Your task to perform on an android device: allow cookies in the chrome app Image 0: 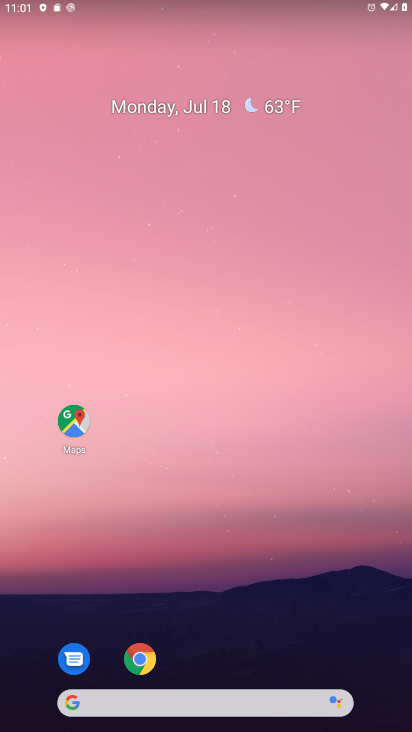
Step 0: drag from (212, 670) to (240, 102)
Your task to perform on an android device: allow cookies in the chrome app Image 1: 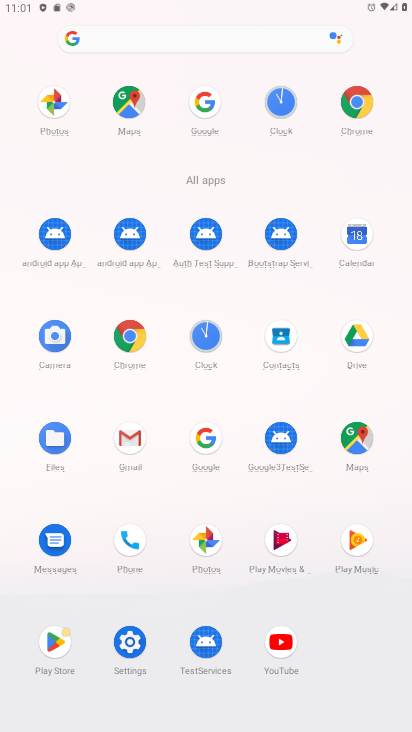
Step 1: click (129, 338)
Your task to perform on an android device: allow cookies in the chrome app Image 2: 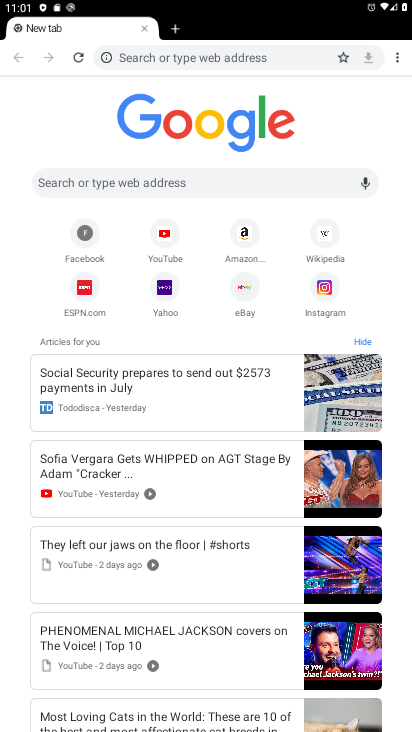
Step 2: click (392, 61)
Your task to perform on an android device: allow cookies in the chrome app Image 3: 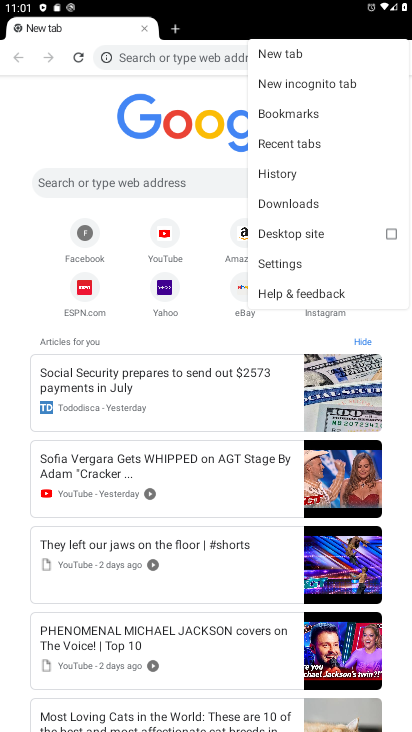
Step 3: click (309, 261)
Your task to perform on an android device: allow cookies in the chrome app Image 4: 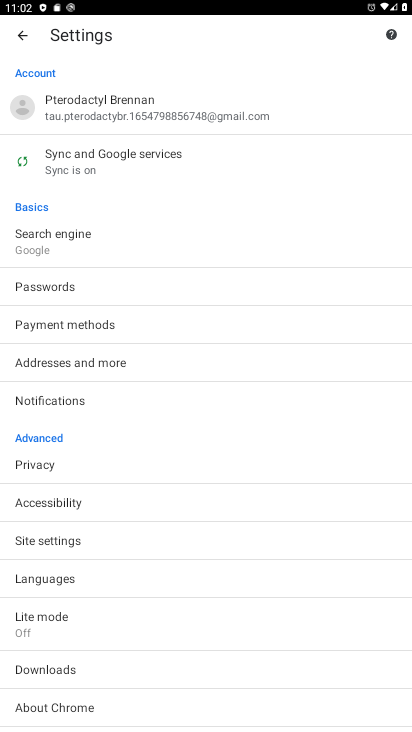
Step 4: click (54, 543)
Your task to perform on an android device: allow cookies in the chrome app Image 5: 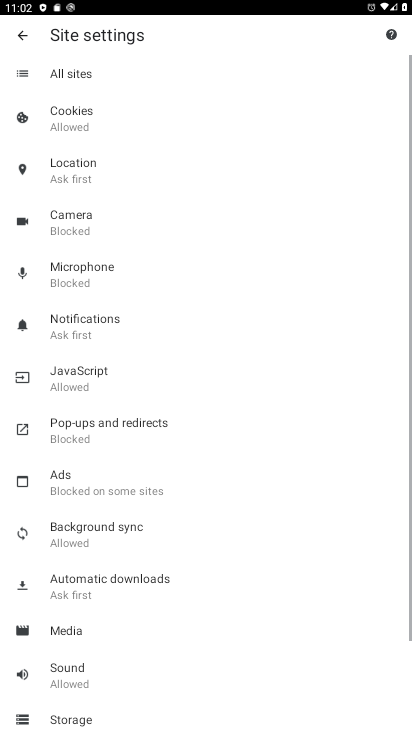
Step 5: click (118, 113)
Your task to perform on an android device: allow cookies in the chrome app Image 6: 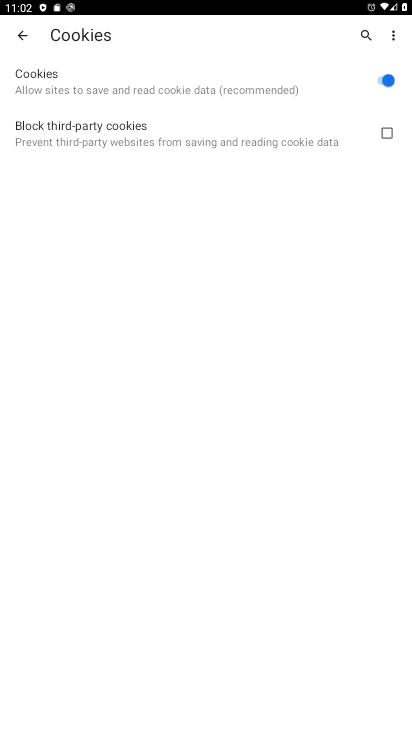
Step 6: task complete